Your task to perform on an android device: Search for sushi restaurants on Maps Image 0: 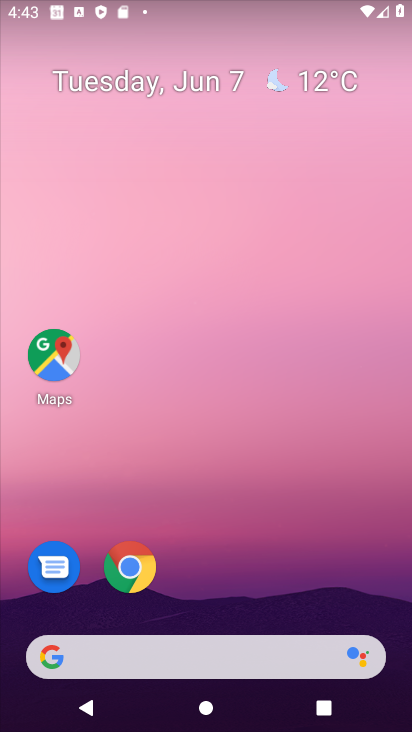
Step 0: drag from (293, 637) to (368, 729)
Your task to perform on an android device: Search for sushi restaurants on Maps Image 1: 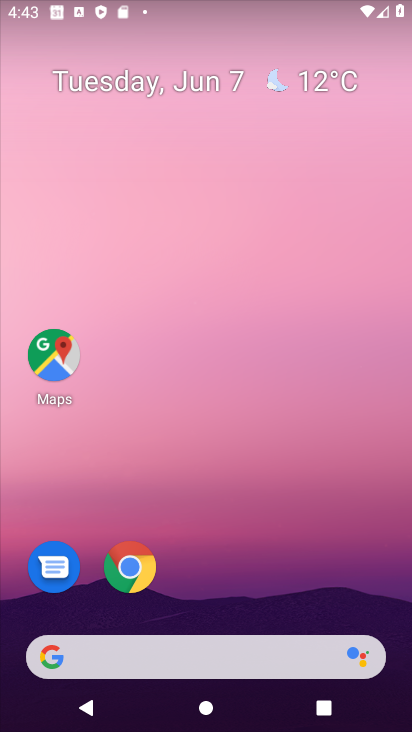
Step 1: drag from (237, 631) to (250, 179)
Your task to perform on an android device: Search for sushi restaurants on Maps Image 2: 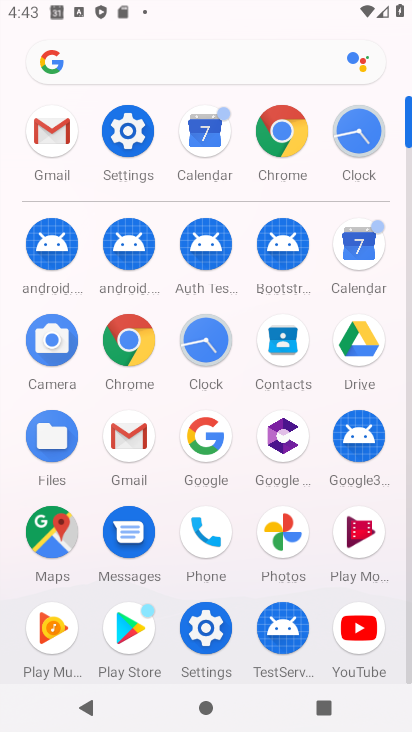
Step 2: click (48, 537)
Your task to perform on an android device: Search for sushi restaurants on Maps Image 3: 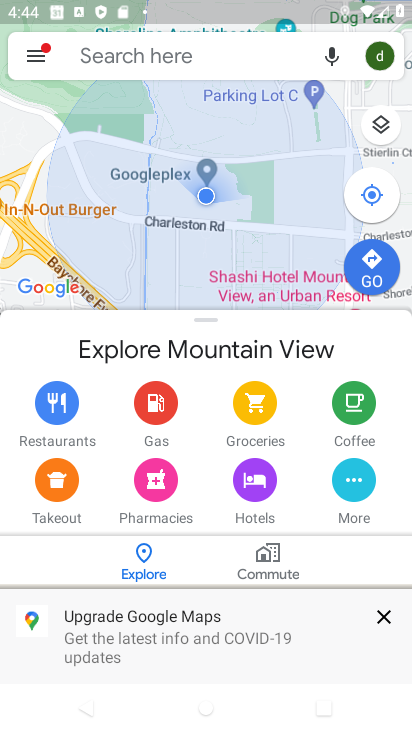
Step 3: task complete